Your task to perform on an android device: Go to Android settings Image 0: 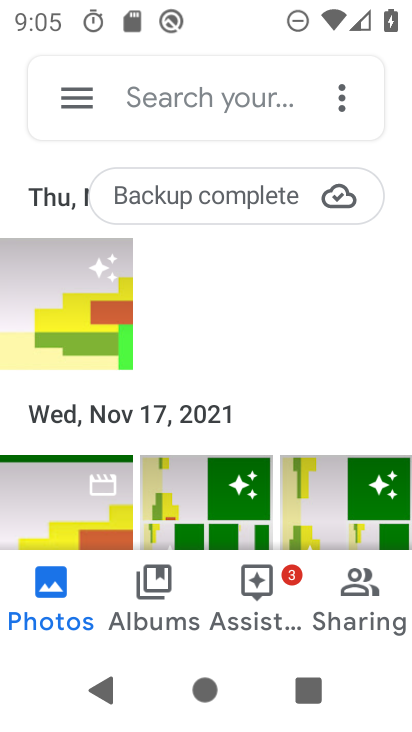
Step 0: press home button
Your task to perform on an android device: Go to Android settings Image 1: 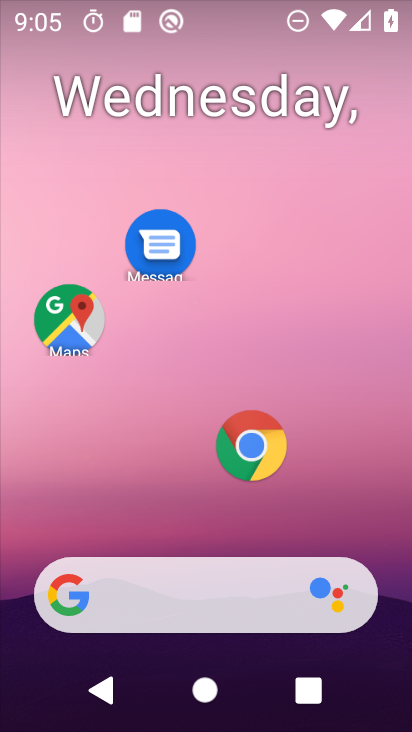
Step 1: drag from (210, 534) to (221, 11)
Your task to perform on an android device: Go to Android settings Image 2: 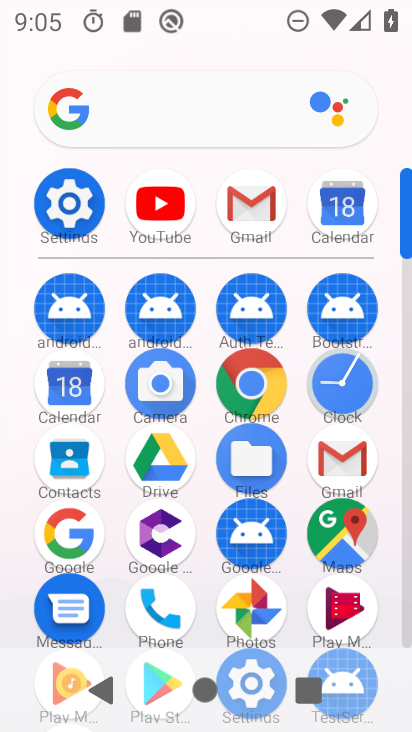
Step 2: click (71, 195)
Your task to perform on an android device: Go to Android settings Image 3: 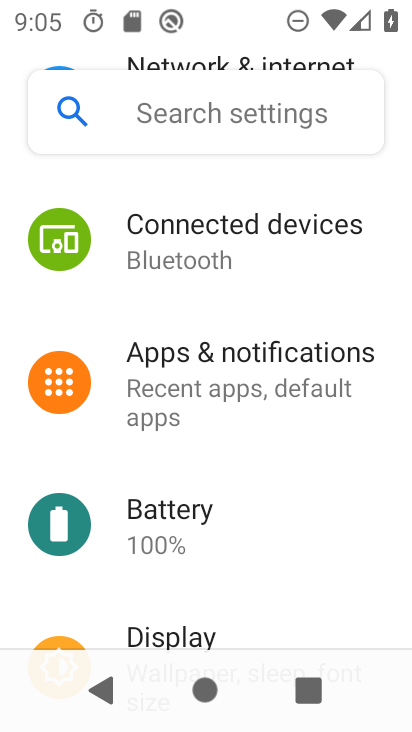
Step 3: drag from (265, 617) to (277, 72)
Your task to perform on an android device: Go to Android settings Image 4: 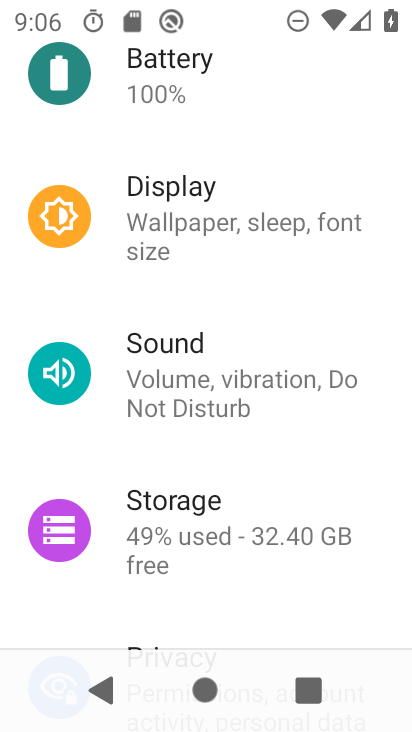
Step 4: drag from (229, 611) to (240, 8)
Your task to perform on an android device: Go to Android settings Image 5: 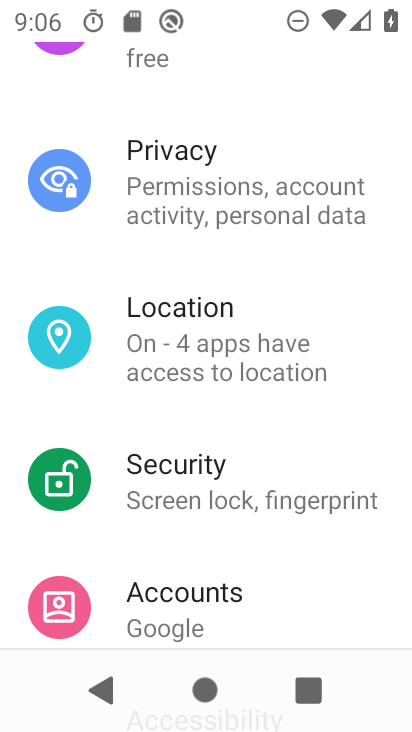
Step 5: drag from (236, 607) to (240, 81)
Your task to perform on an android device: Go to Android settings Image 6: 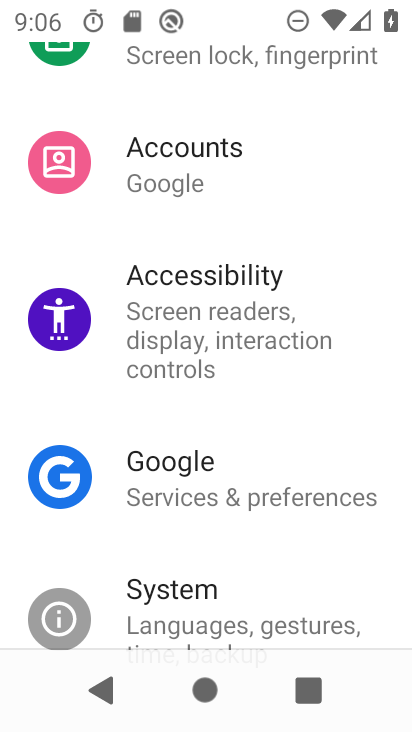
Step 6: drag from (242, 597) to (256, 116)
Your task to perform on an android device: Go to Android settings Image 7: 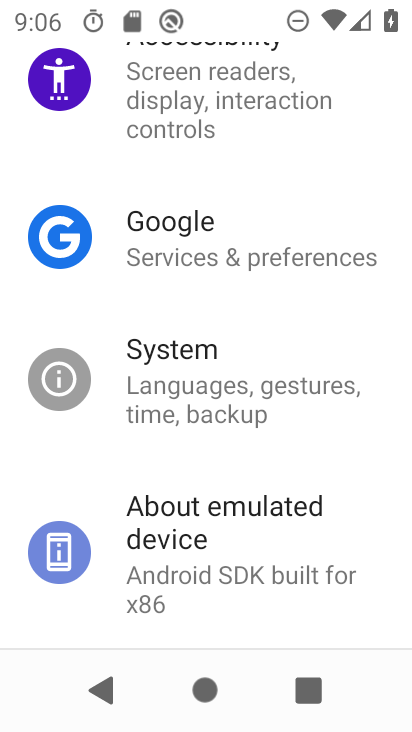
Step 7: click (233, 536)
Your task to perform on an android device: Go to Android settings Image 8: 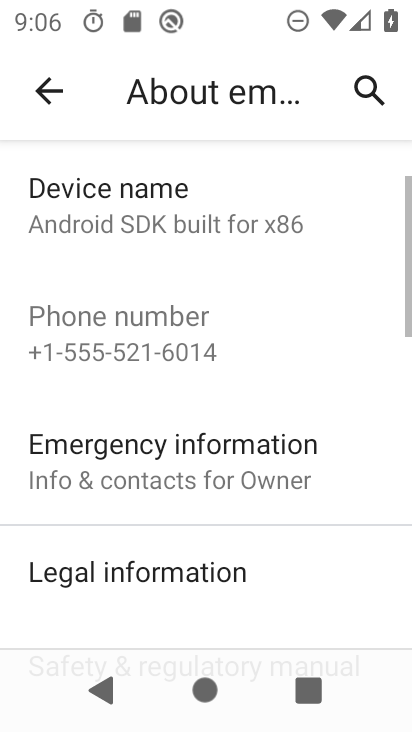
Step 8: drag from (235, 602) to (223, 223)
Your task to perform on an android device: Go to Android settings Image 9: 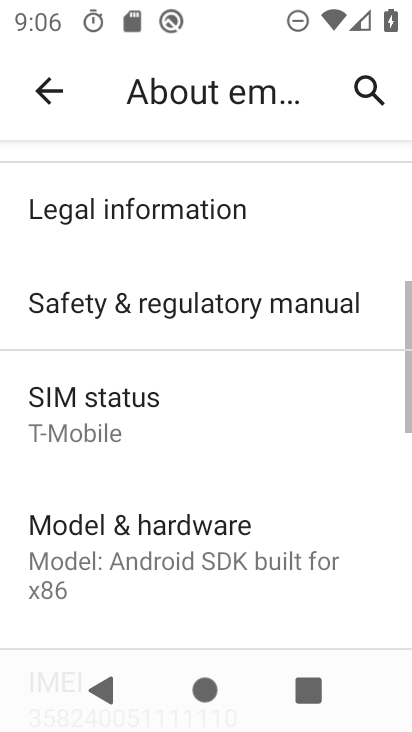
Step 9: drag from (184, 585) to (188, 70)
Your task to perform on an android device: Go to Android settings Image 10: 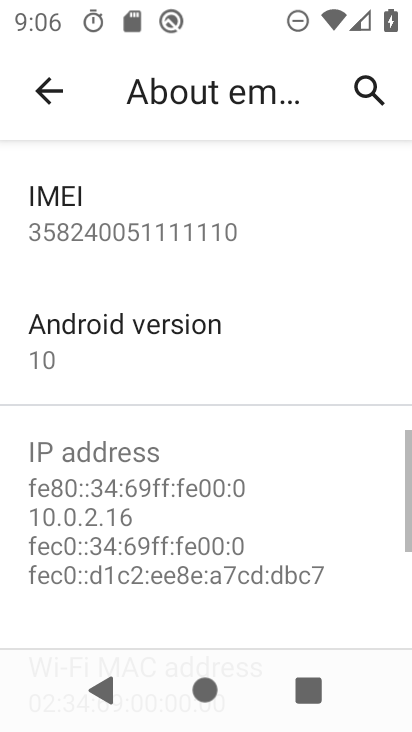
Step 10: click (111, 355)
Your task to perform on an android device: Go to Android settings Image 11: 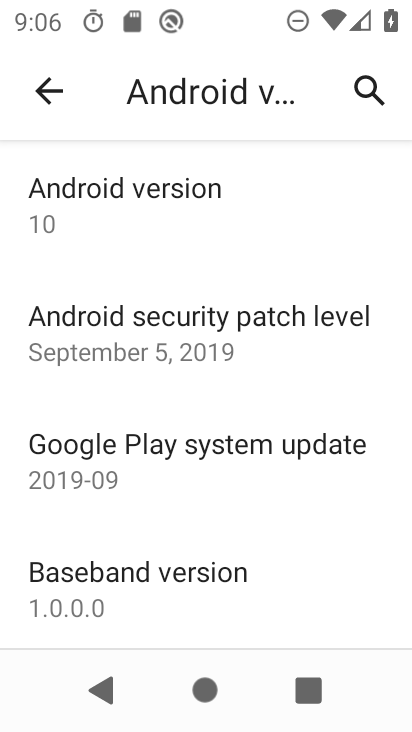
Step 11: task complete